Your task to perform on an android device: Play the latest video from the Washington Post Image 0: 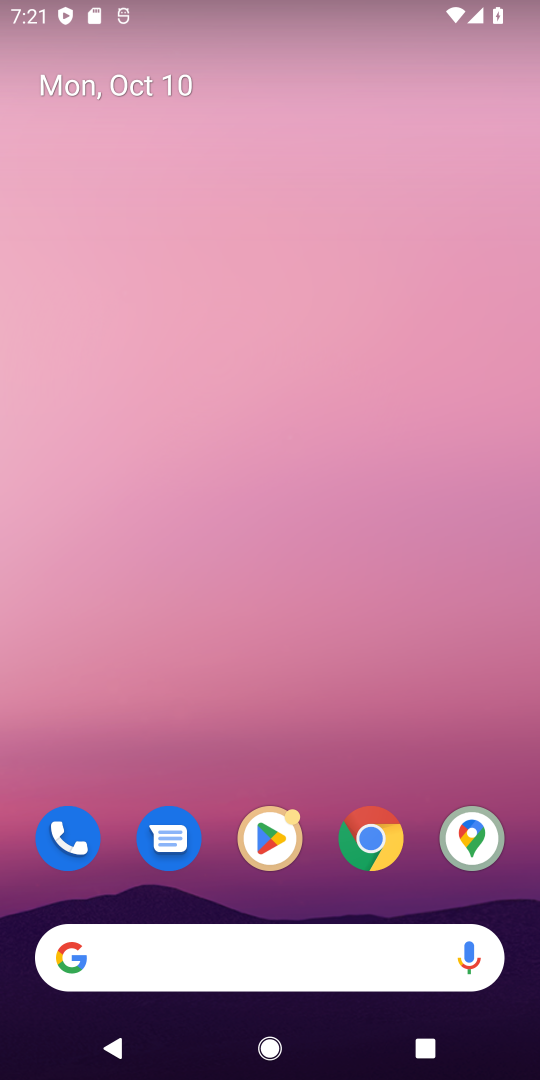
Step 0: click (369, 838)
Your task to perform on an android device: Play the latest video from the Washington Post Image 1: 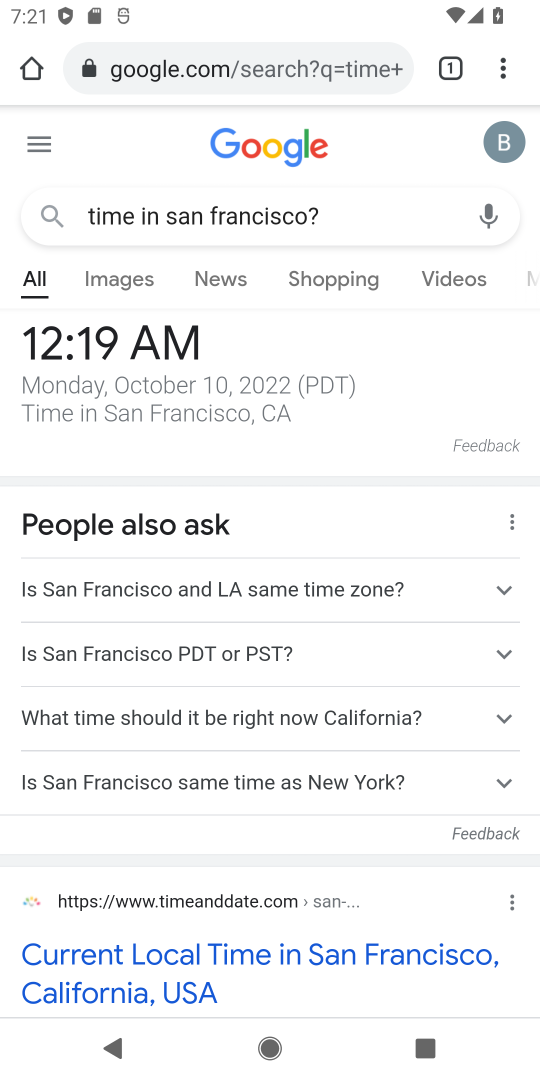
Step 1: click (328, 213)
Your task to perform on an android device: Play the latest video from the Washington Post Image 2: 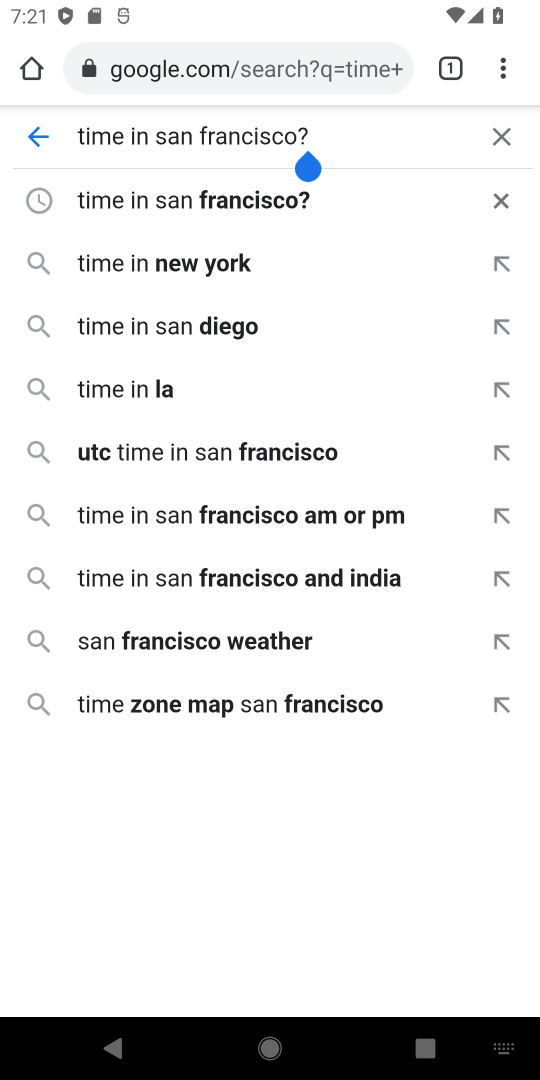
Step 2: click (498, 123)
Your task to perform on an android device: Play the latest video from the Washington Post Image 3: 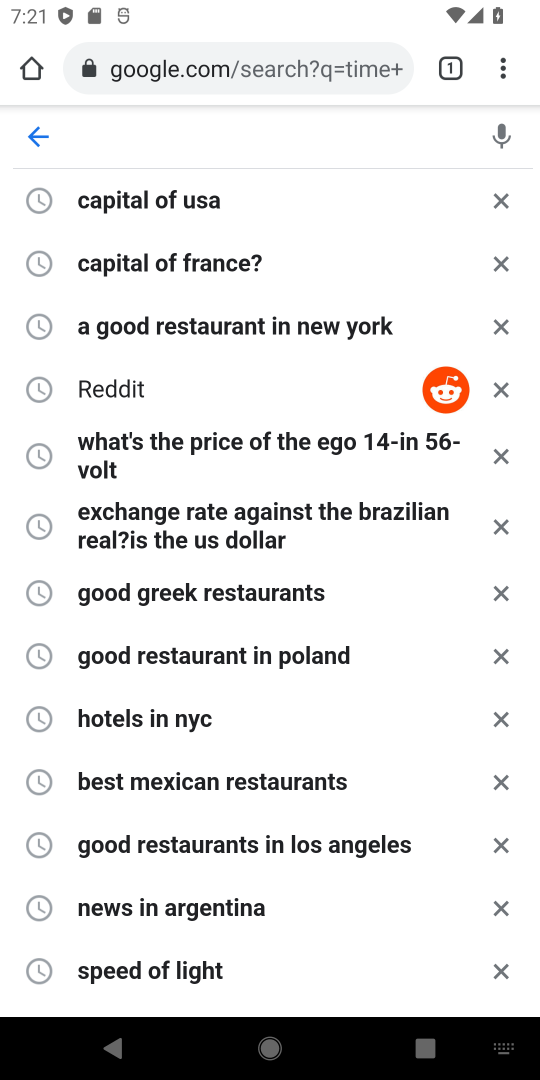
Step 3: press home button
Your task to perform on an android device: Play the latest video from the Washington Post Image 4: 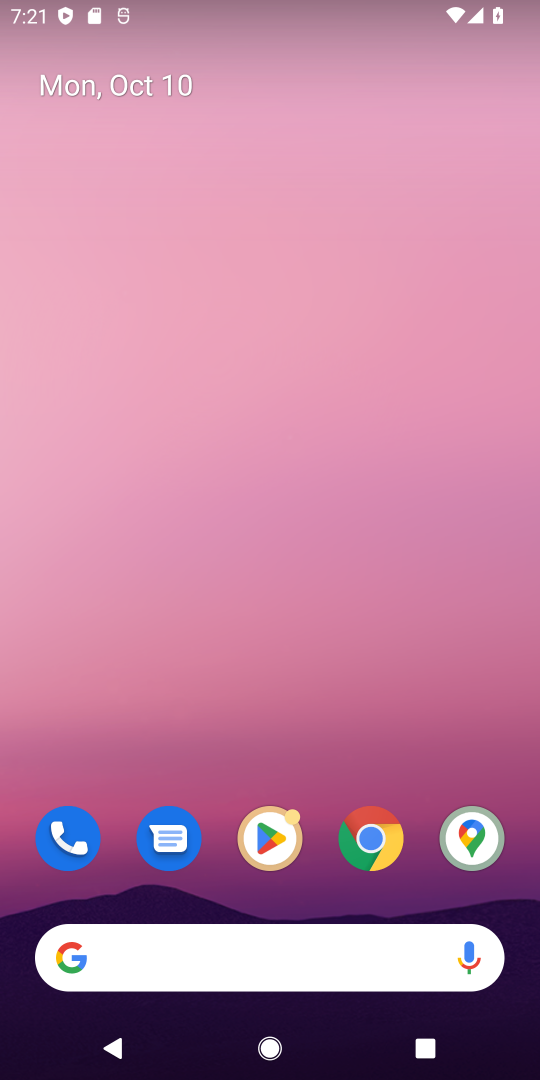
Step 4: drag from (428, 856) to (390, 224)
Your task to perform on an android device: Play the latest video from the Washington Post Image 5: 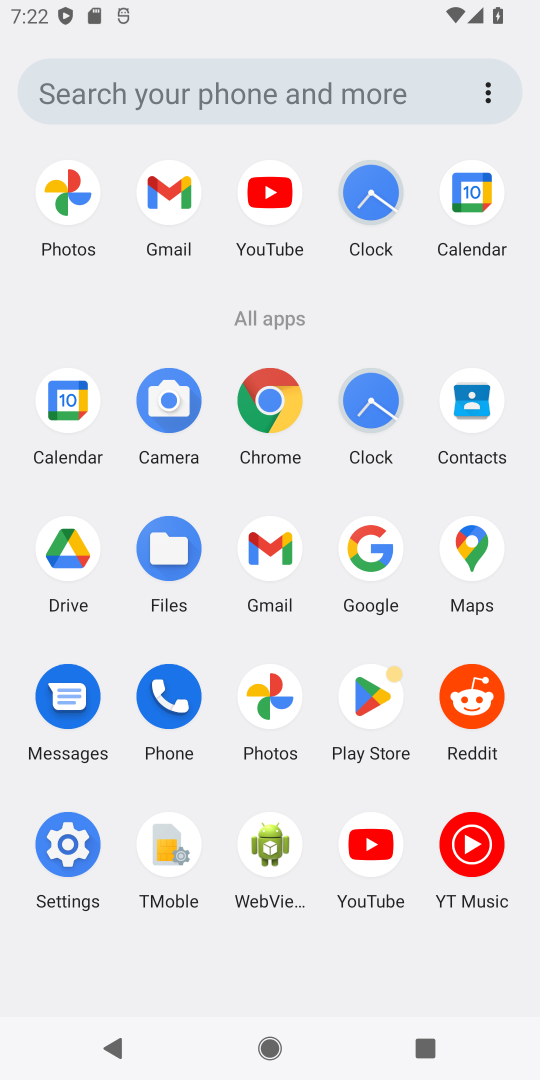
Step 5: click (375, 845)
Your task to perform on an android device: Play the latest video from the Washington Post Image 6: 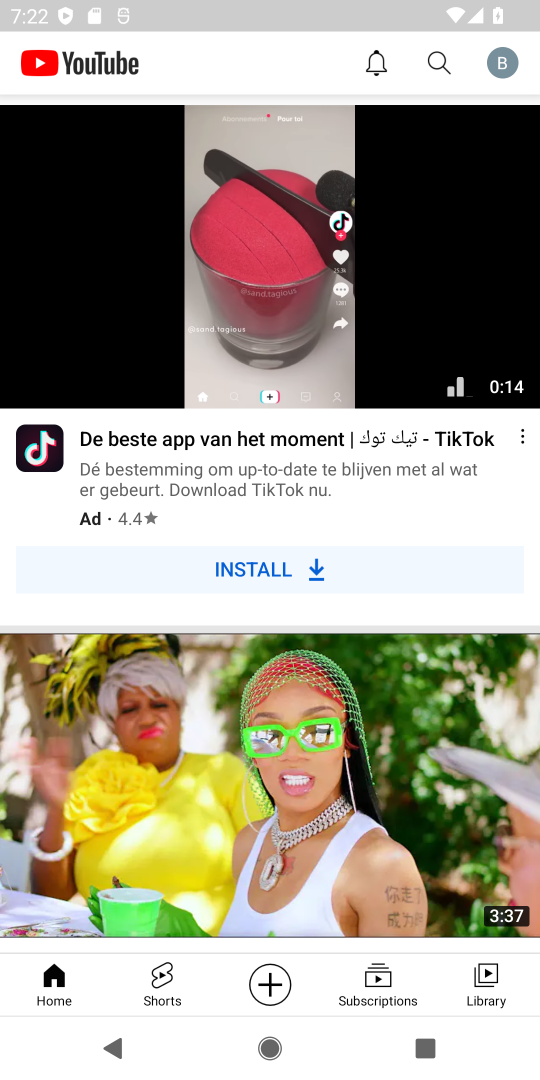
Step 6: click (438, 55)
Your task to perform on an android device: Play the latest video from the Washington Post Image 7: 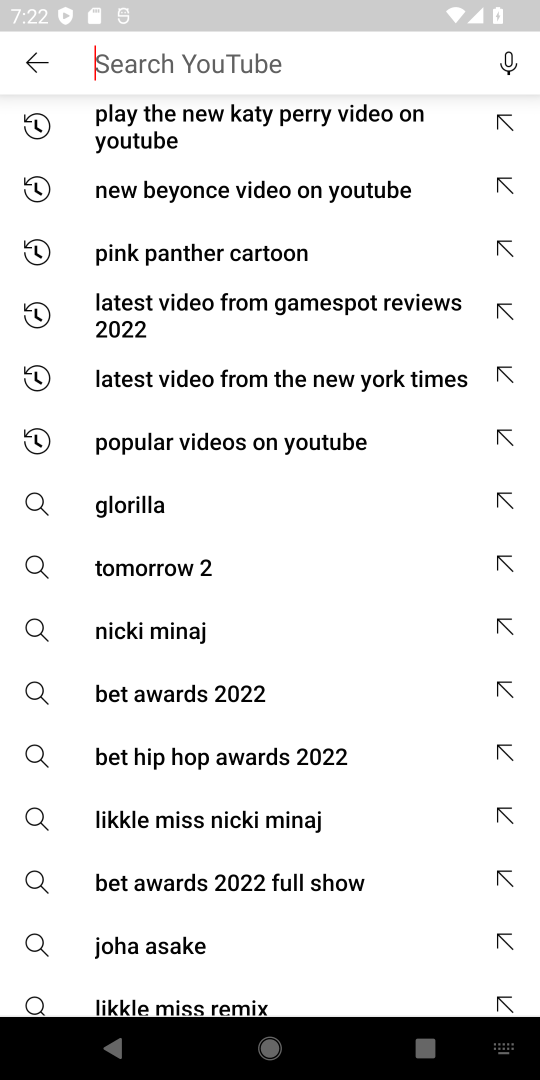
Step 7: type "washington post"
Your task to perform on an android device: Play the latest video from the Washington Post Image 8: 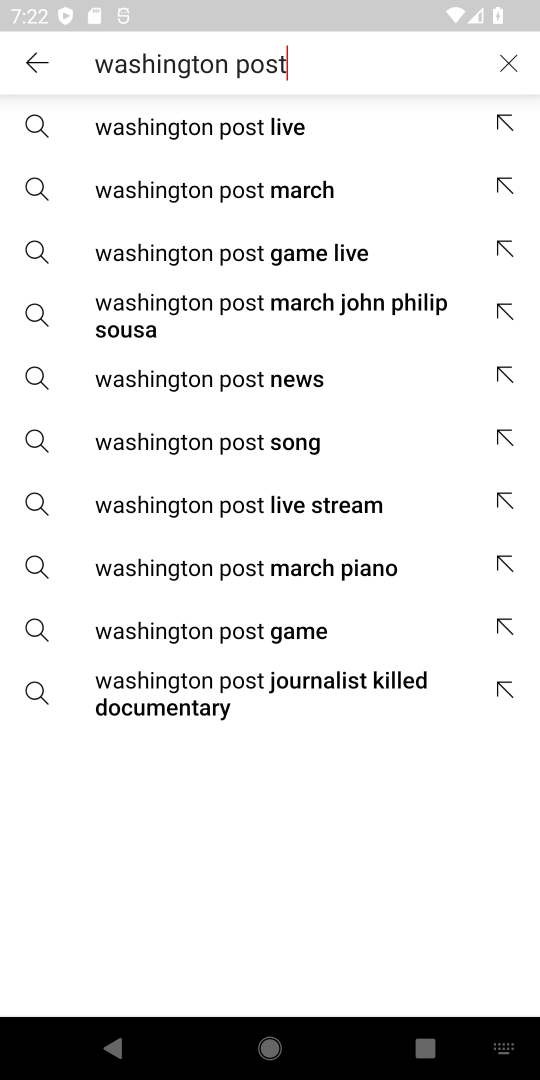
Step 8: click (214, 382)
Your task to perform on an android device: Play the latest video from the Washington Post Image 9: 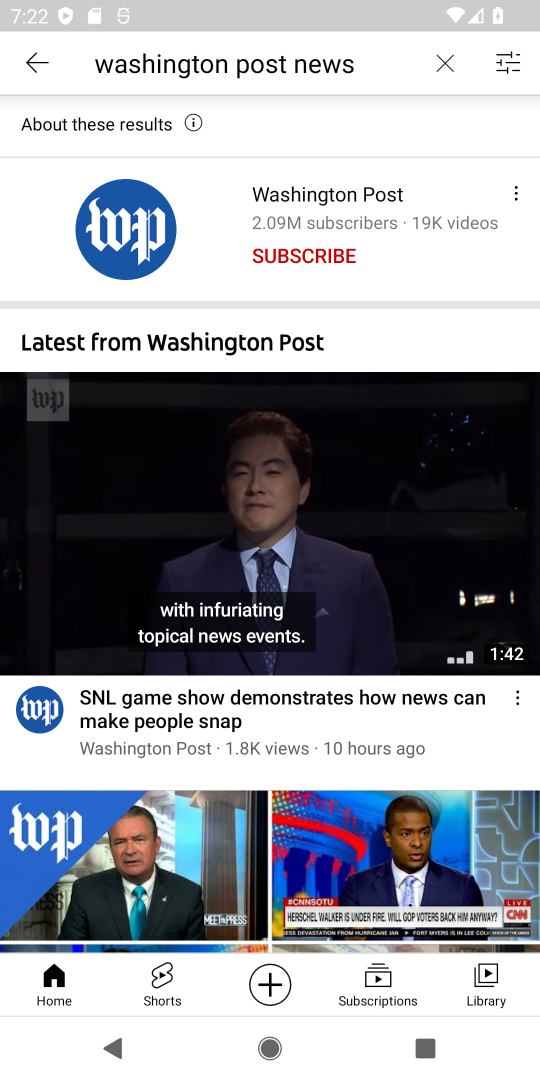
Step 9: click (298, 191)
Your task to perform on an android device: Play the latest video from the Washington Post Image 10: 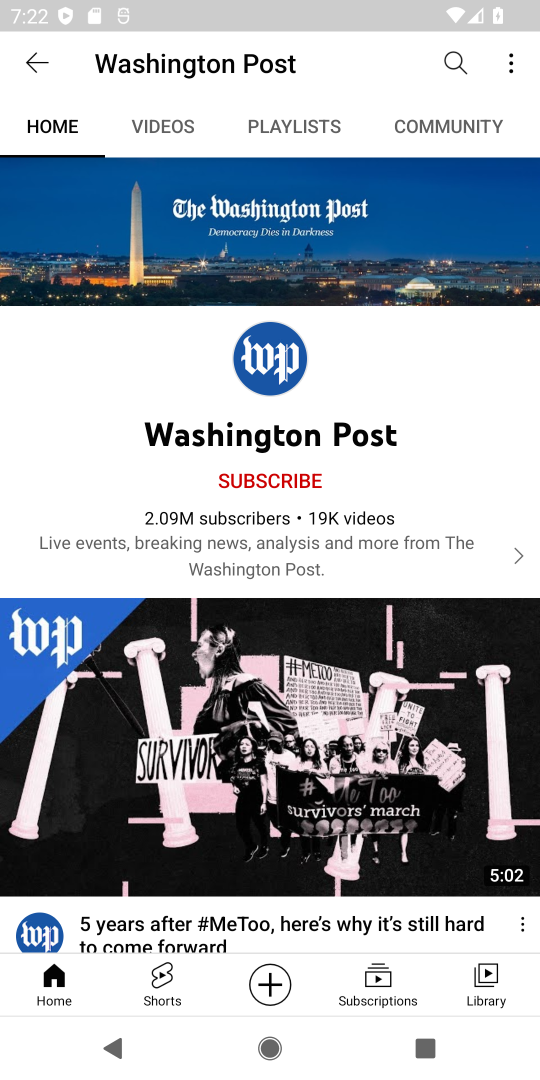
Step 10: click (147, 121)
Your task to perform on an android device: Play the latest video from the Washington Post Image 11: 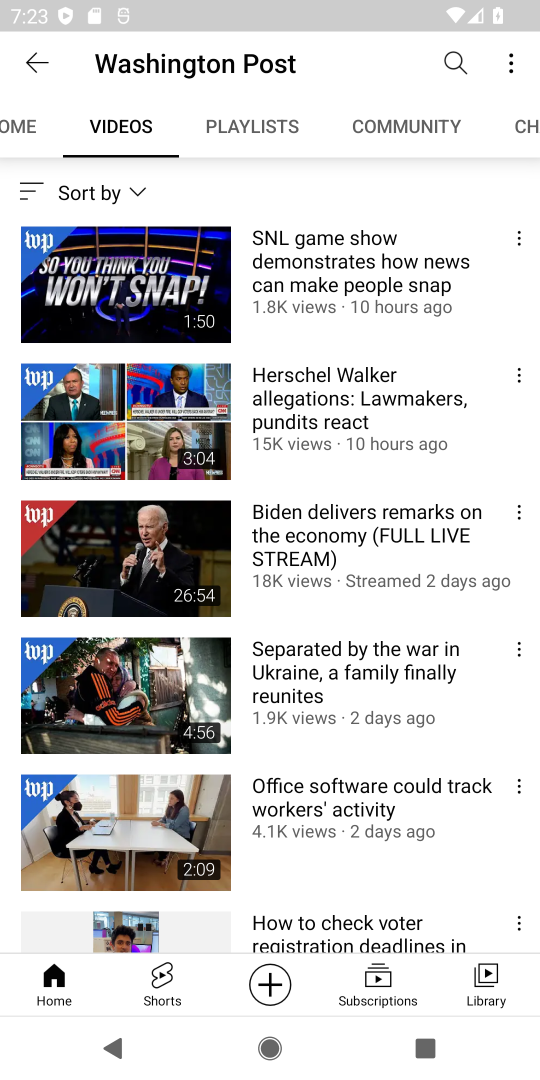
Step 11: drag from (242, 758) to (255, 314)
Your task to perform on an android device: Play the latest video from the Washington Post Image 12: 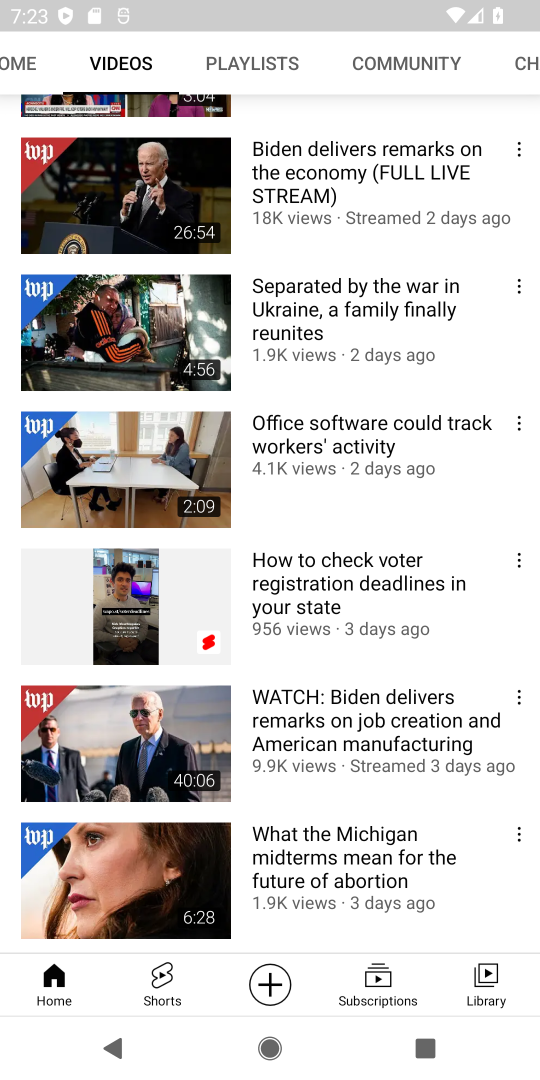
Step 12: drag from (256, 333) to (262, 777)
Your task to perform on an android device: Play the latest video from the Washington Post Image 13: 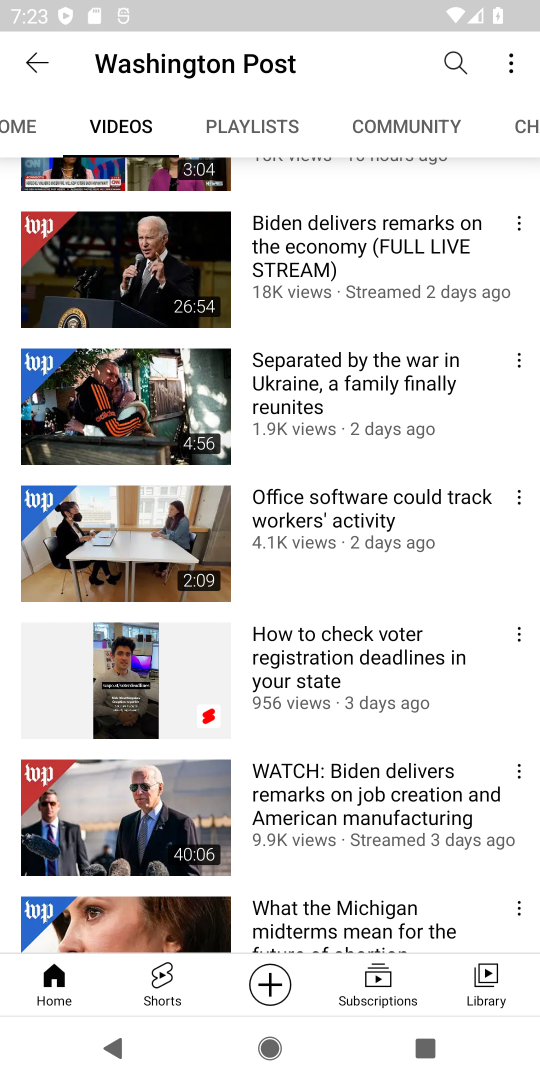
Step 13: drag from (313, 375) to (303, 818)
Your task to perform on an android device: Play the latest video from the Washington Post Image 14: 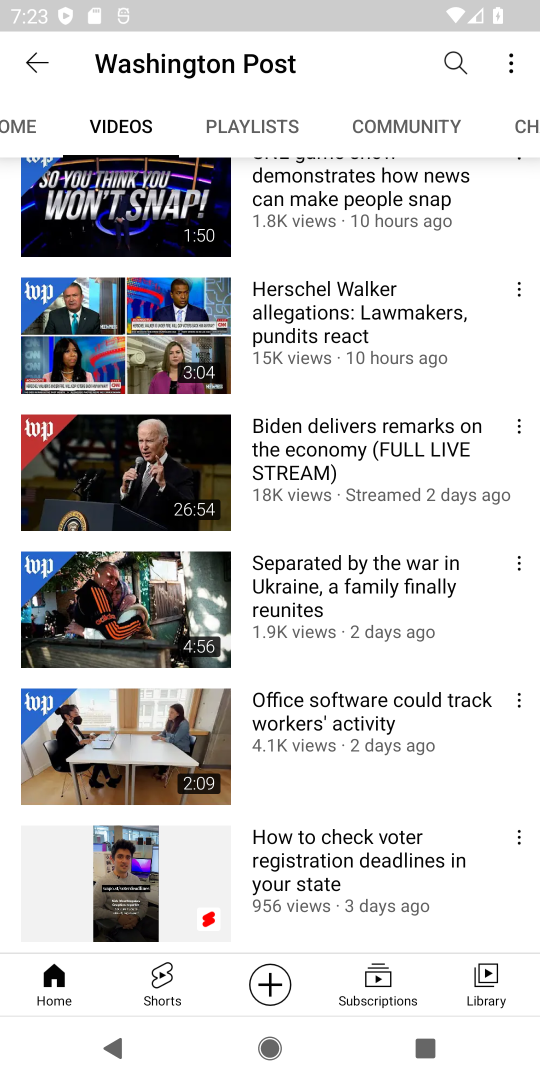
Step 14: drag from (244, 394) to (254, 705)
Your task to perform on an android device: Play the latest video from the Washington Post Image 15: 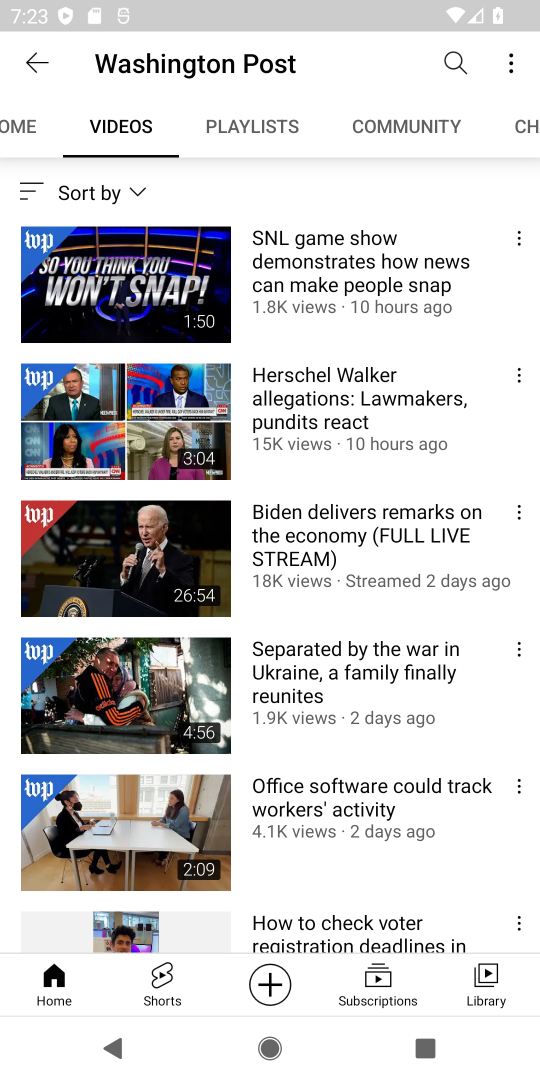
Step 15: click (132, 268)
Your task to perform on an android device: Play the latest video from the Washington Post Image 16: 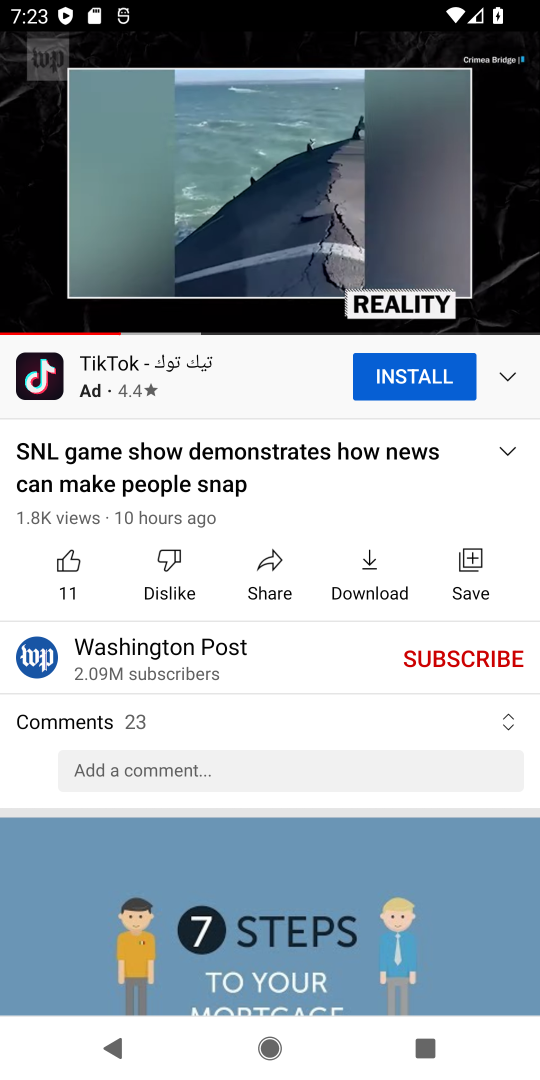
Step 16: click (271, 183)
Your task to perform on an android device: Play the latest video from the Washington Post Image 17: 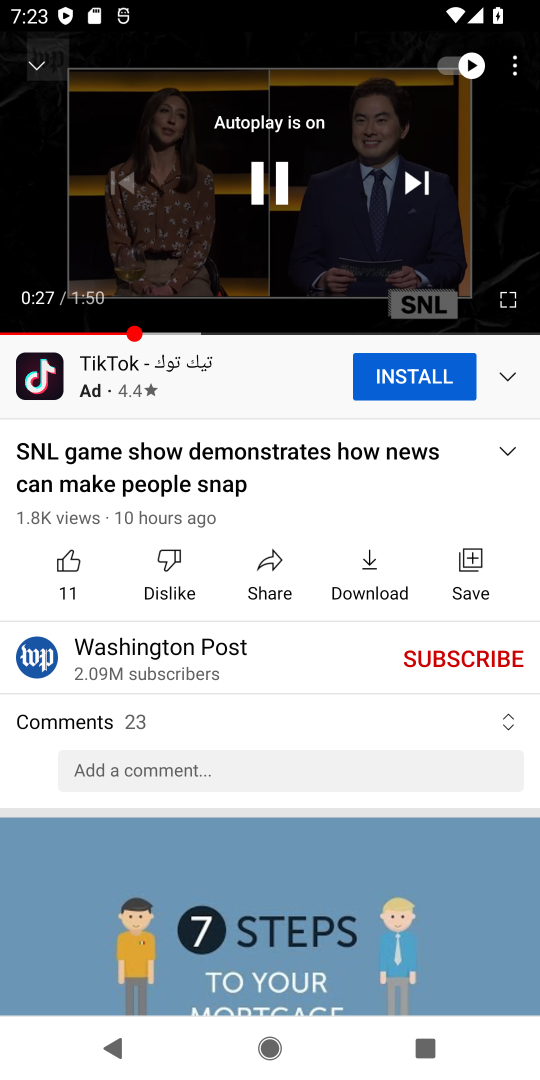
Step 17: click (271, 183)
Your task to perform on an android device: Play the latest video from the Washington Post Image 18: 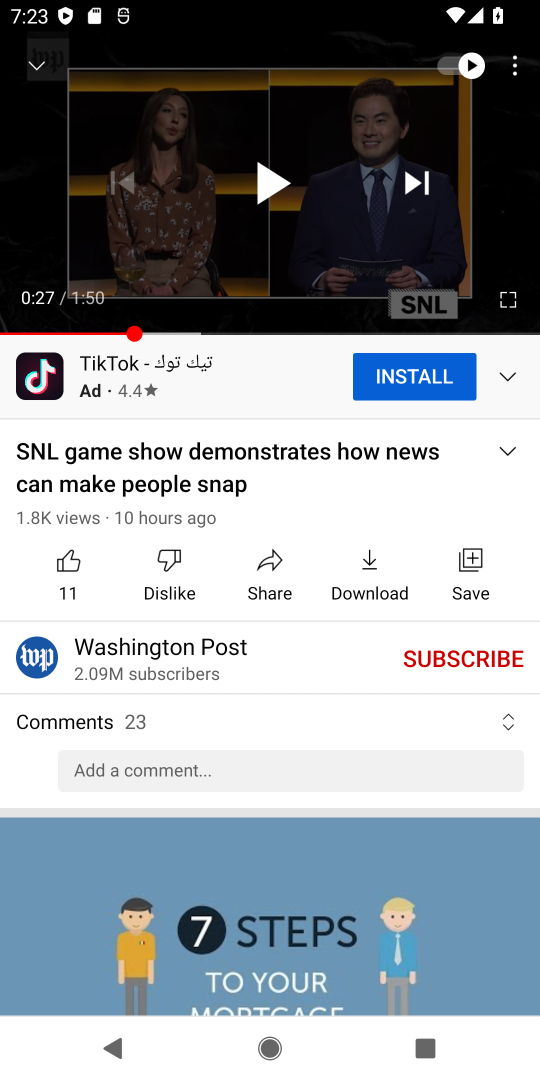
Step 18: task complete